Your task to perform on an android device: open wifi settings Image 0: 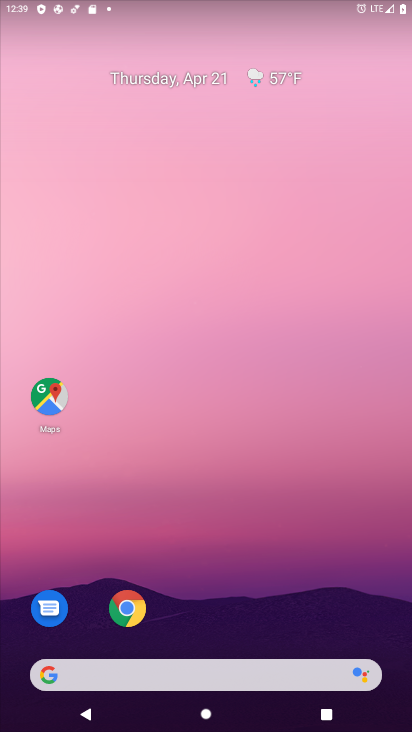
Step 0: drag from (226, 490) to (226, 165)
Your task to perform on an android device: open wifi settings Image 1: 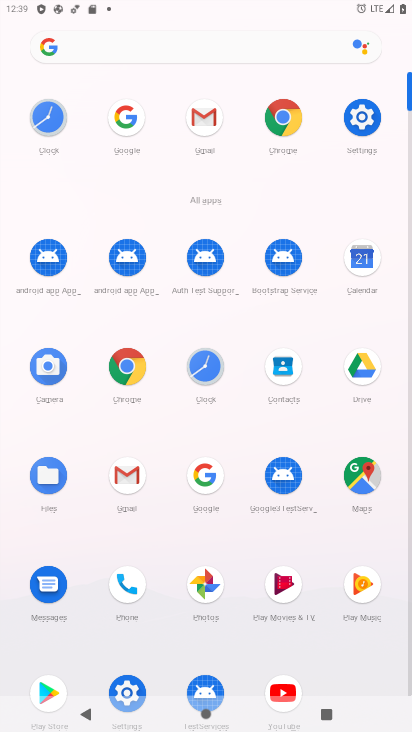
Step 1: click (356, 121)
Your task to perform on an android device: open wifi settings Image 2: 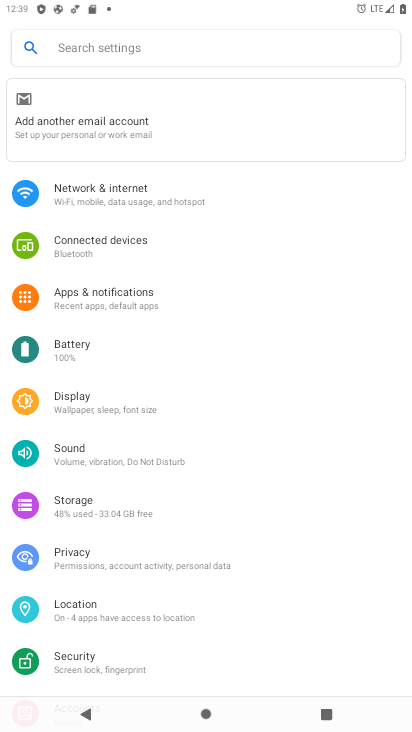
Step 2: click (125, 194)
Your task to perform on an android device: open wifi settings Image 3: 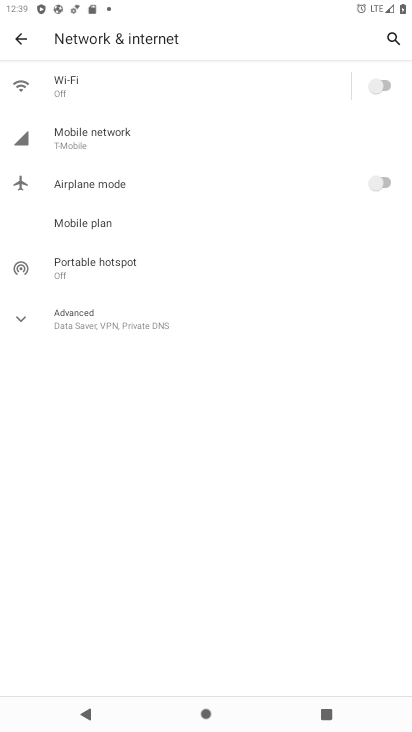
Step 3: task complete